Your task to perform on an android device: check battery use Image 0: 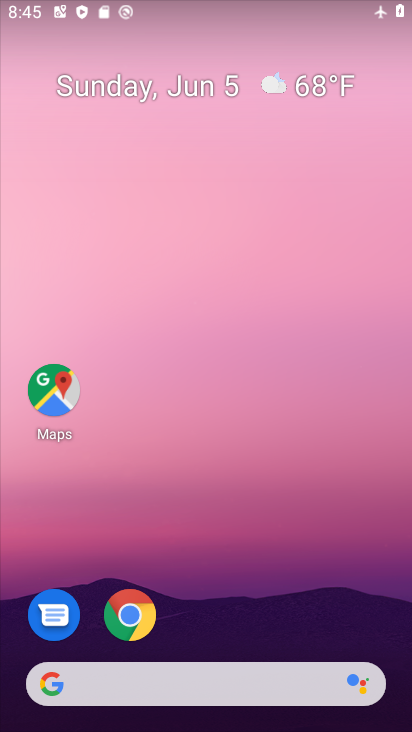
Step 0: drag from (218, 672) to (171, 0)
Your task to perform on an android device: check battery use Image 1: 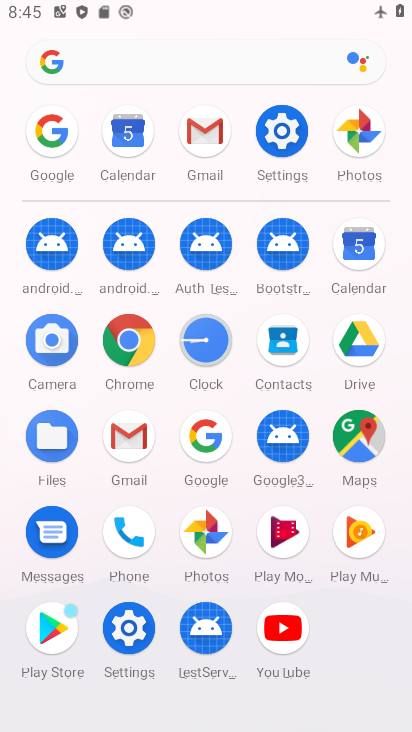
Step 1: click (273, 130)
Your task to perform on an android device: check battery use Image 2: 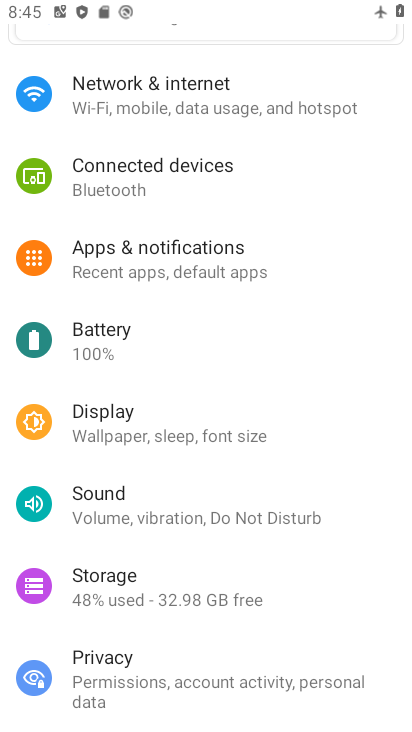
Step 2: click (126, 339)
Your task to perform on an android device: check battery use Image 3: 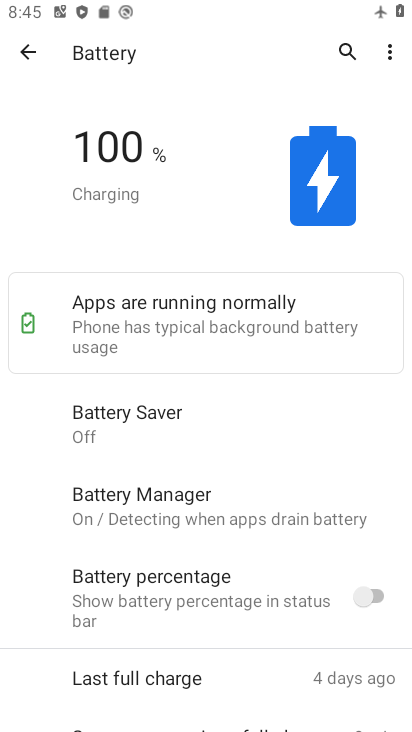
Step 3: click (385, 41)
Your task to perform on an android device: check battery use Image 4: 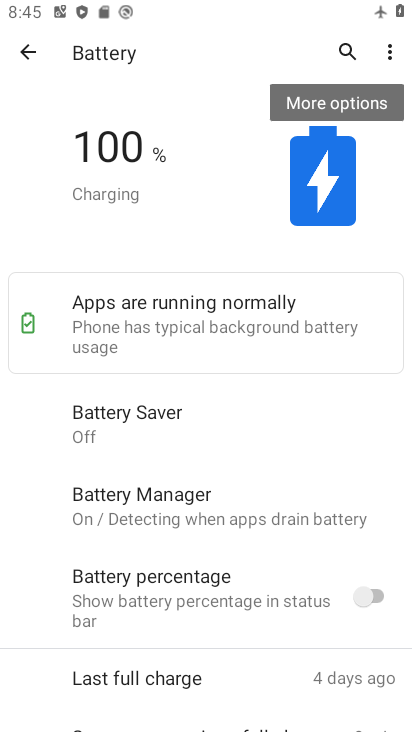
Step 4: click (385, 41)
Your task to perform on an android device: check battery use Image 5: 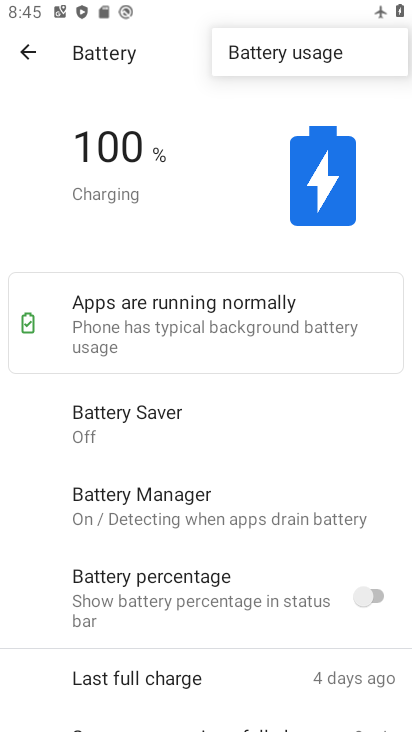
Step 5: click (315, 65)
Your task to perform on an android device: check battery use Image 6: 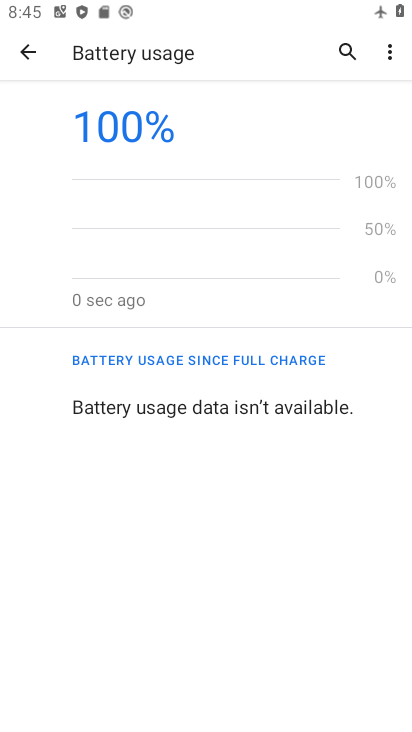
Step 6: task complete